Your task to perform on an android device: open chrome and create a bookmark for the current page Image 0: 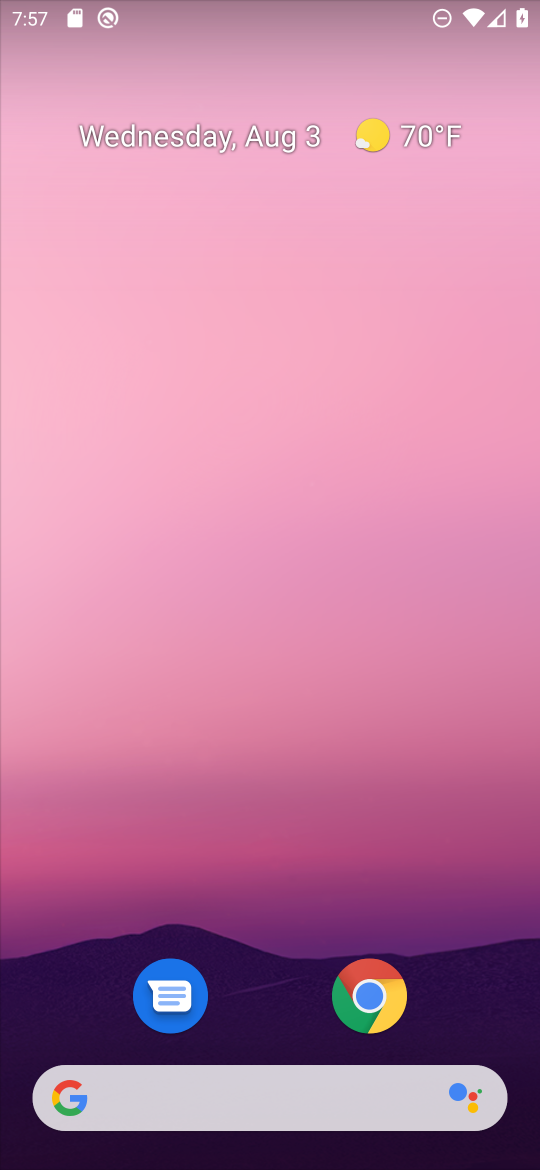
Step 0: click (376, 1003)
Your task to perform on an android device: open chrome and create a bookmark for the current page Image 1: 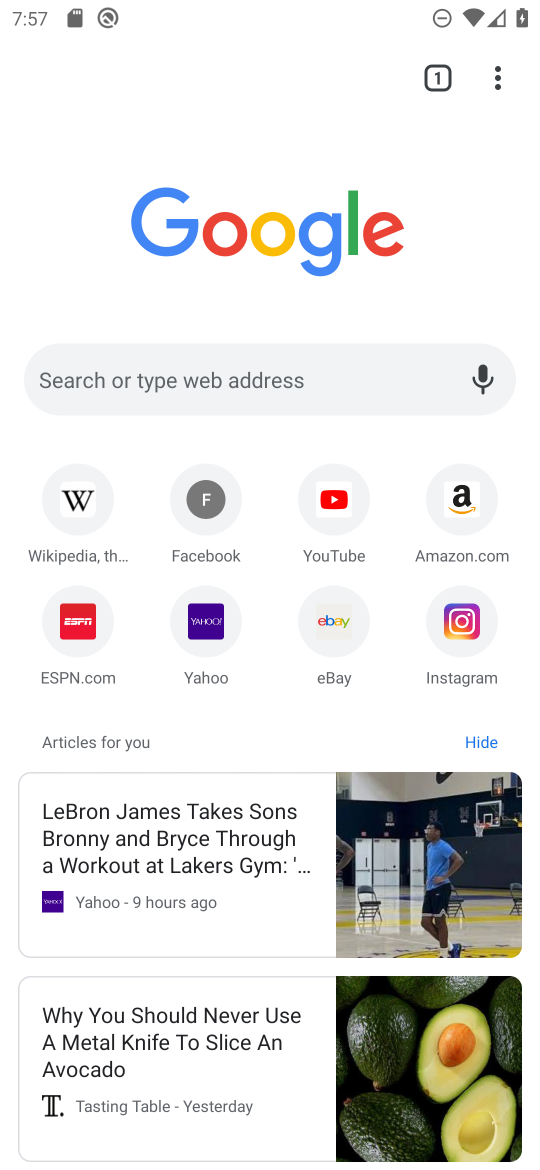
Step 1: click (496, 79)
Your task to perform on an android device: open chrome and create a bookmark for the current page Image 2: 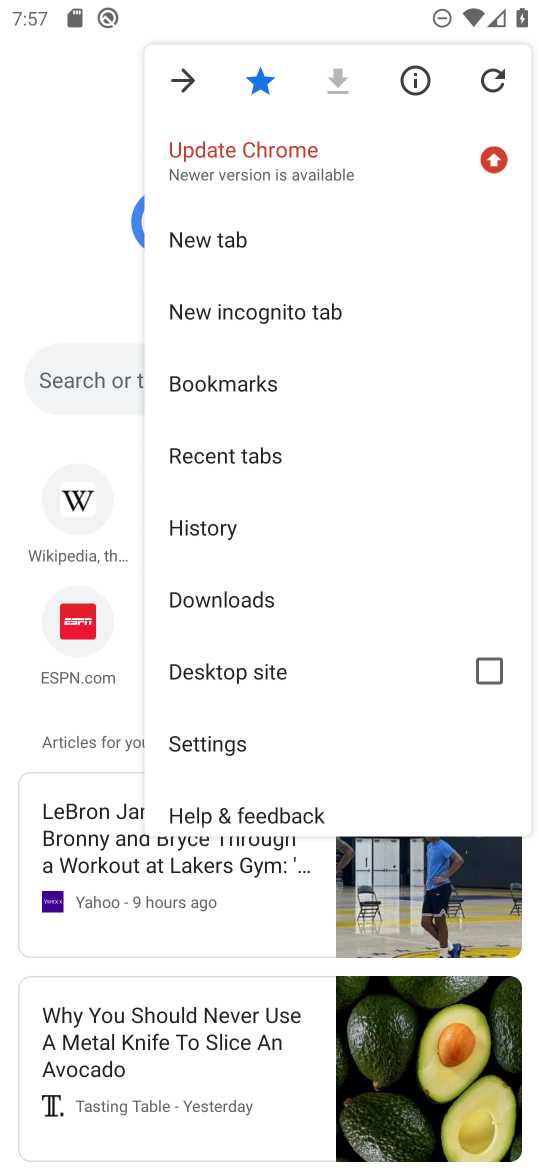
Step 2: task complete